Your task to perform on an android device: open app "WhatsApp Messenger" (install if not already installed) and enter user name: "cartons@outlook.com" and password: "approximated" Image 0: 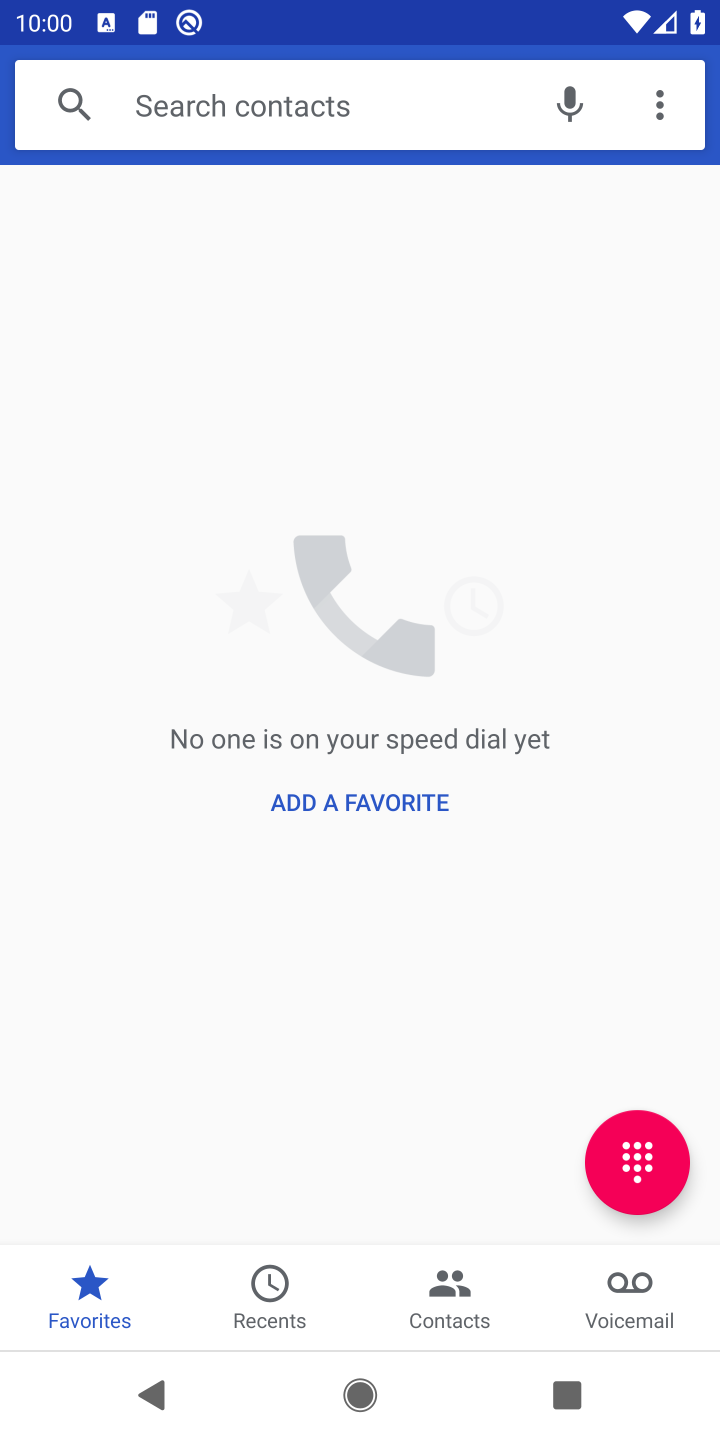
Step 0: press home button
Your task to perform on an android device: open app "WhatsApp Messenger" (install if not already installed) and enter user name: "cartons@outlook.com" and password: "approximated" Image 1: 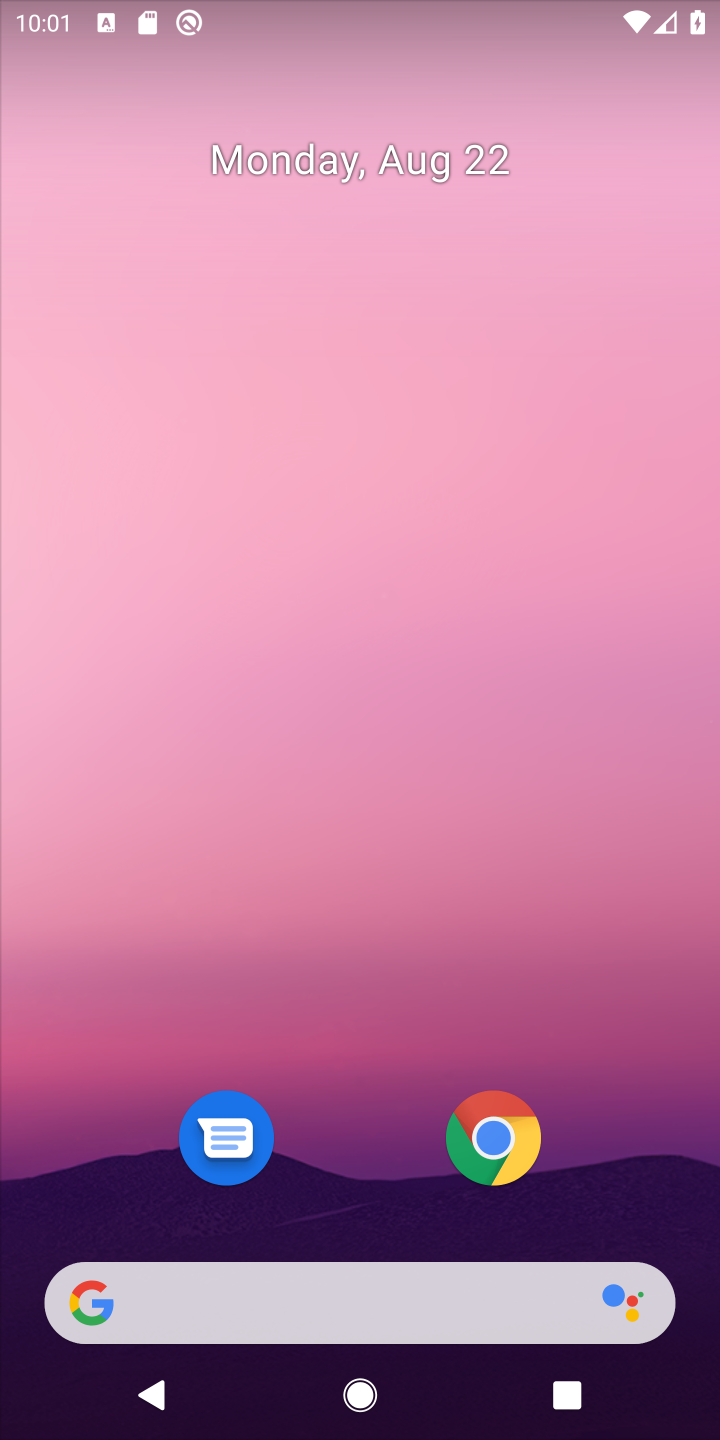
Step 1: click (380, 41)
Your task to perform on an android device: open app "WhatsApp Messenger" (install if not already installed) and enter user name: "cartons@outlook.com" and password: "approximated" Image 2: 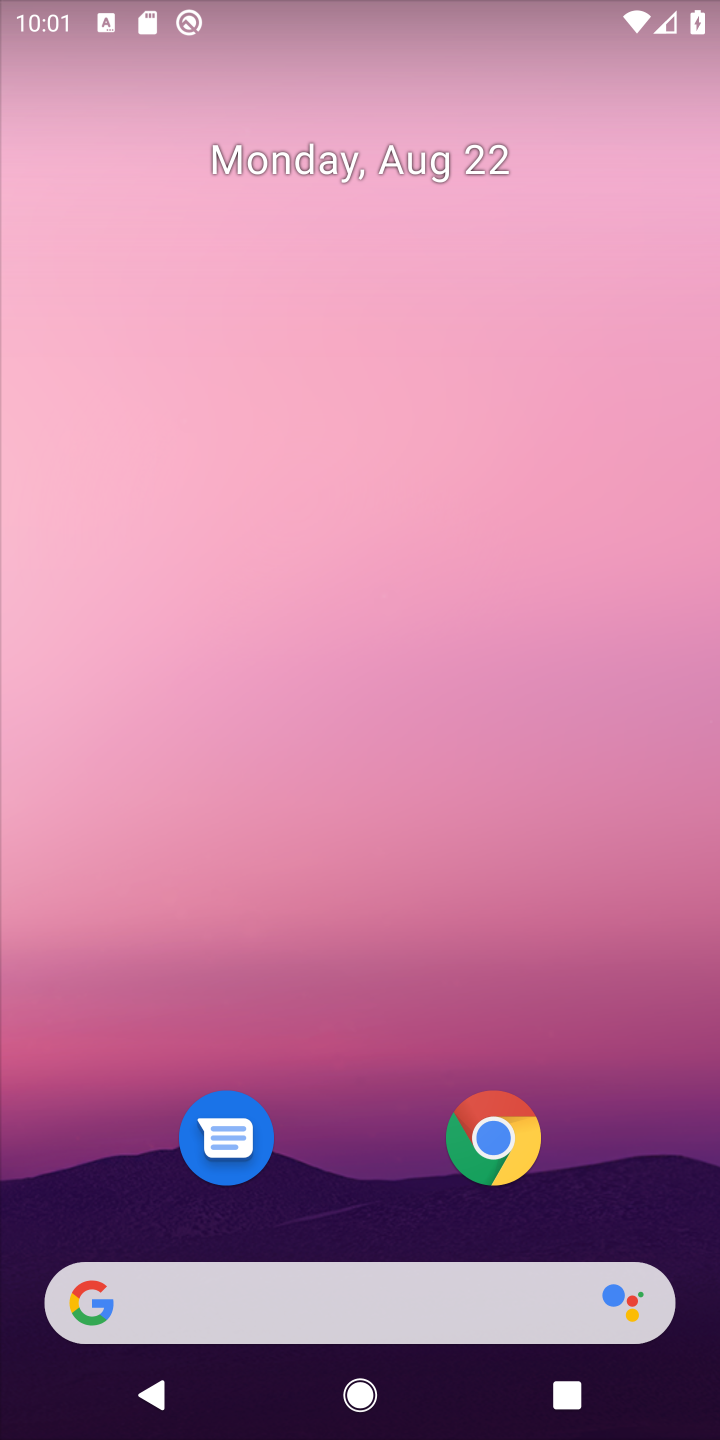
Step 2: drag from (385, 1216) to (416, 38)
Your task to perform on an android device: open app "WhatsApp Messenger" (install if not already installed) and enter user name: "cartons@outlook.com" and password: "approximated" Image 3: 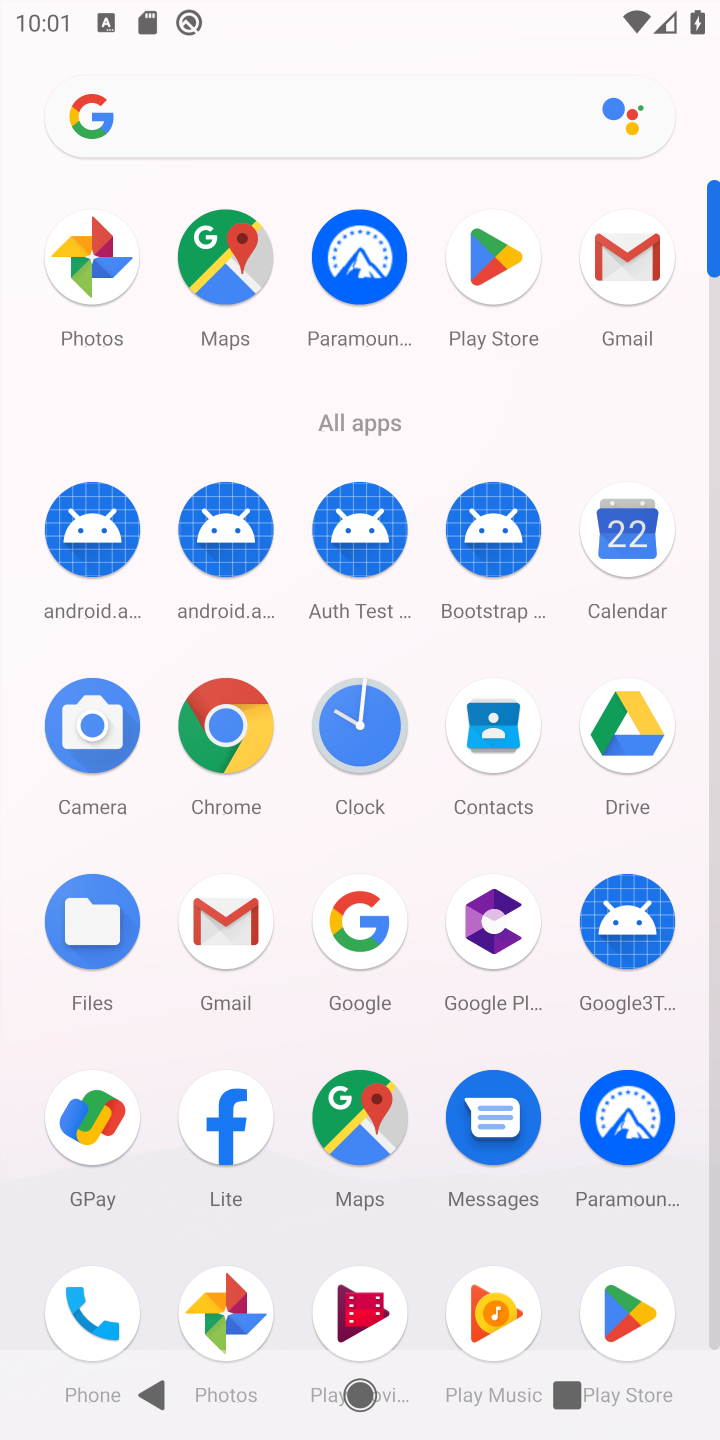
Step 3: click (492, 249)
Your task to perform on an android device: open app "WhatsApp Messenger" (install if not already installed) and enter user name: "cartons@outlook.com" and password: "approximated" Image 4: 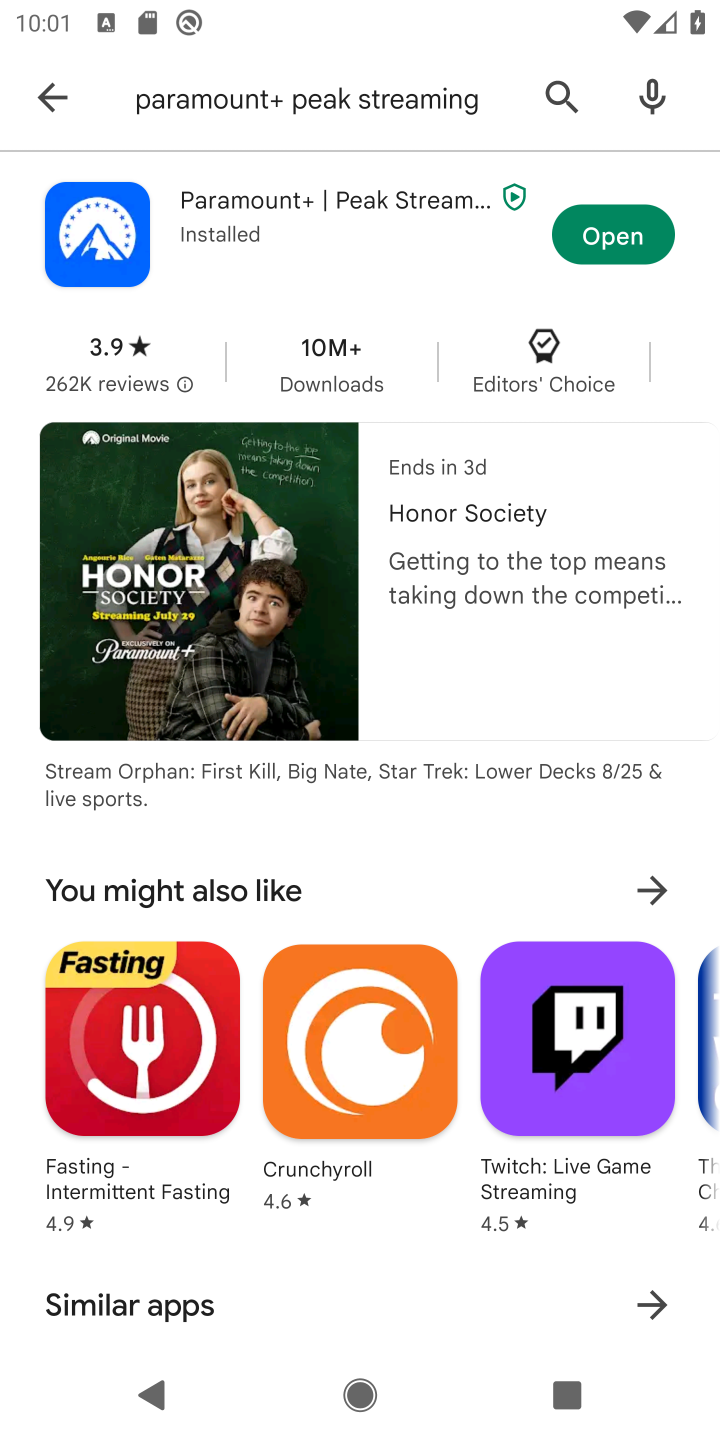
Step 4: click (562, 92)
Your task to perform on an android device: open app "WhatsApp Messenger" (install if not already installed) and enter user name: "cartons@outlook.com" and password: "approximated" Image 5: 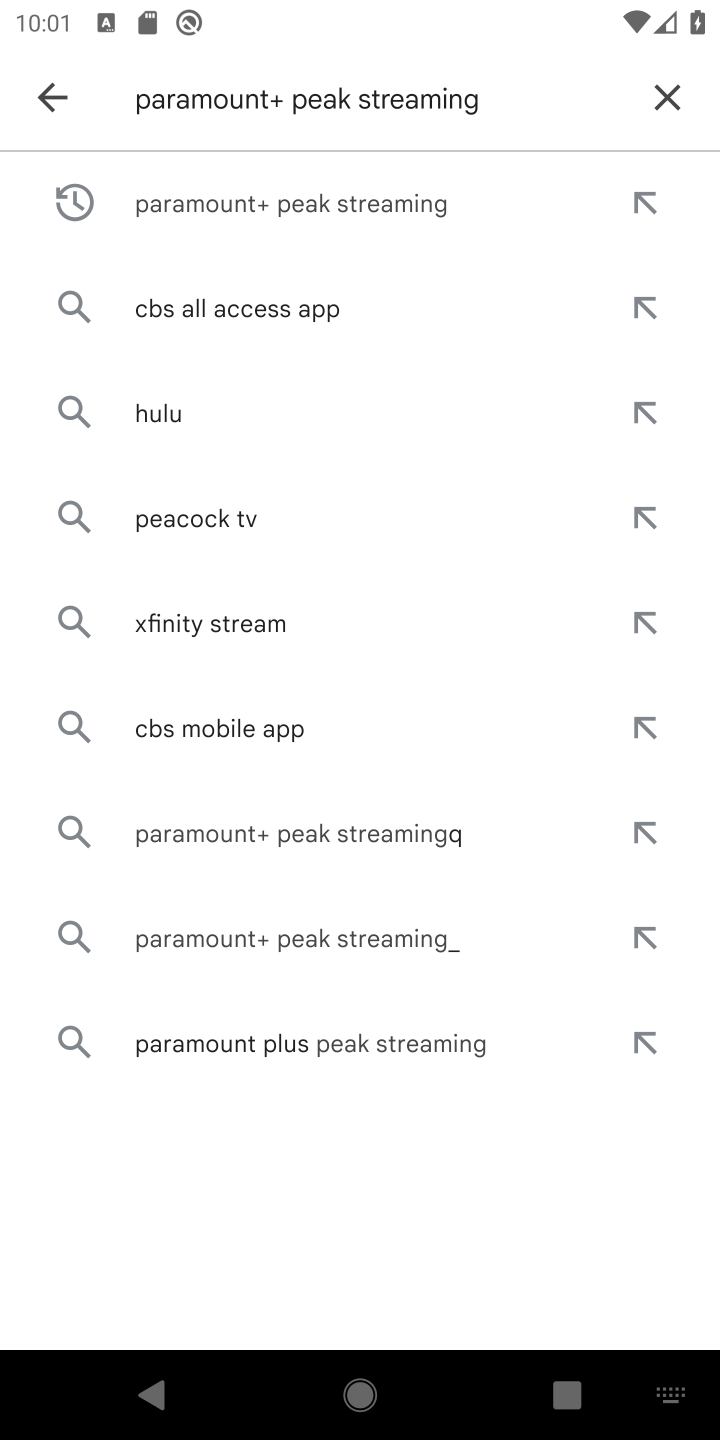
Step 5: click (664, 79)
Your task to perform on an android device: open app "WhatsApp Messenger" (install if not already installed) and enter user name: "cartons@outlook.com" and password: "approximated" Image 6: 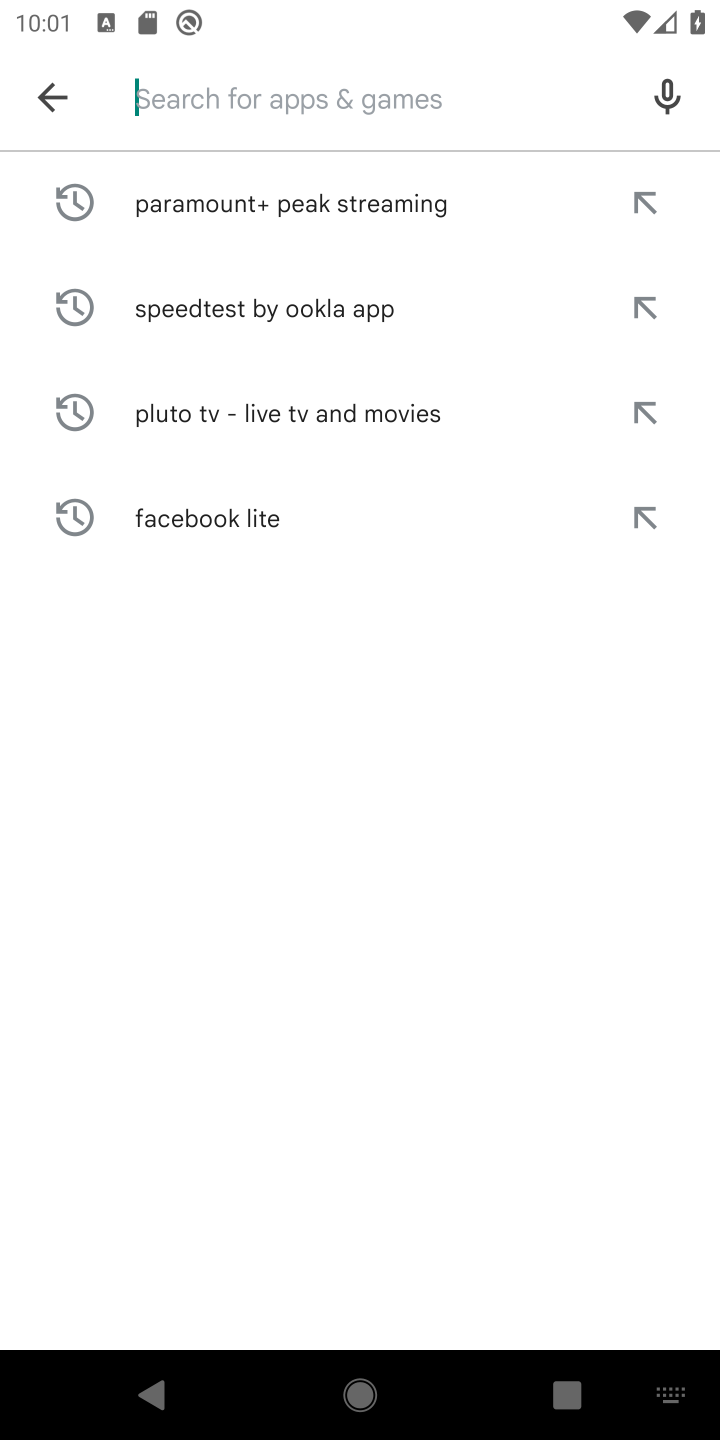
Step 6: type "WhatsApp Messenger"
Your task to perform on an android device: open app "WhatsApp Messenger" (install if not already installed) and enter user name: "cartons@outlook.com" and password: "approximated" Image 7: 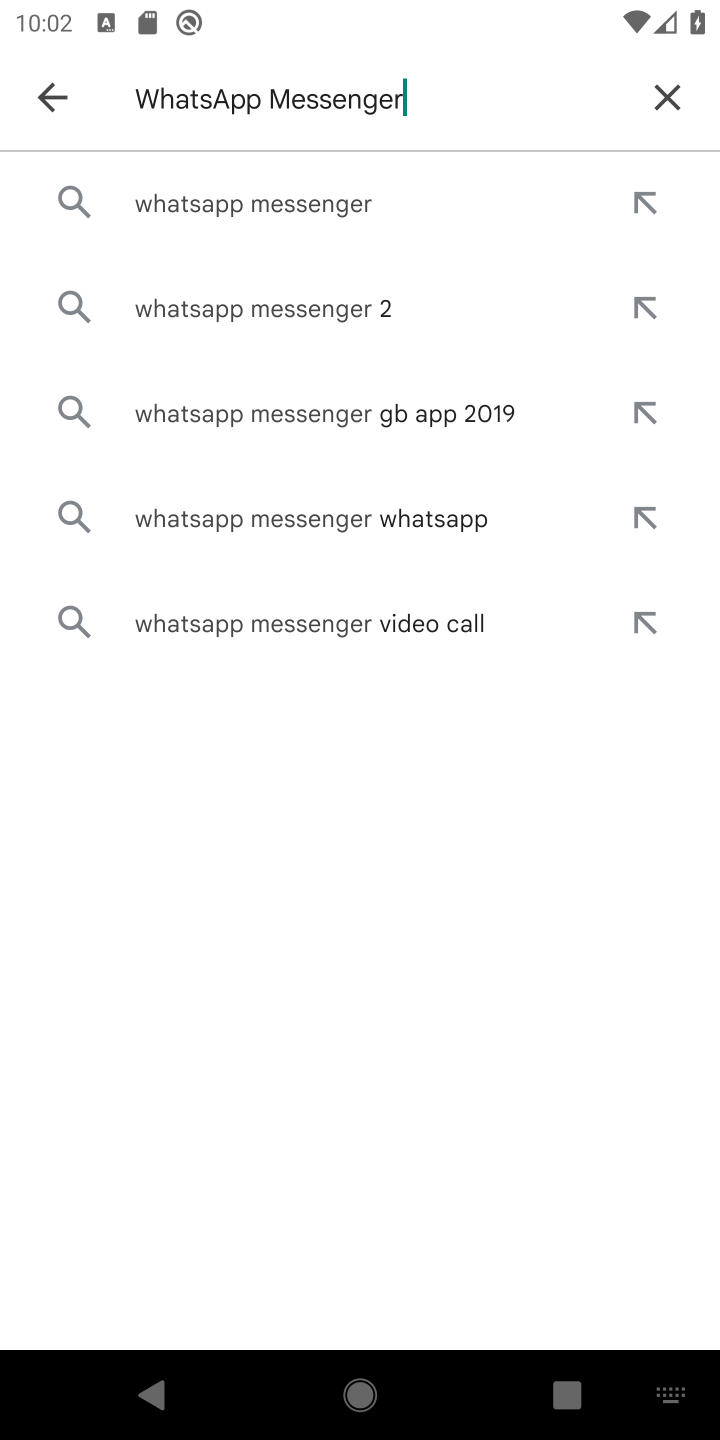
Step 7: click (371, 208)
Your task to perform on an android device: open app "WhatsApp Messenger" (install if not already installed) and enter user name: "cartons@outlook.com" and password: "approximated" Image 8: 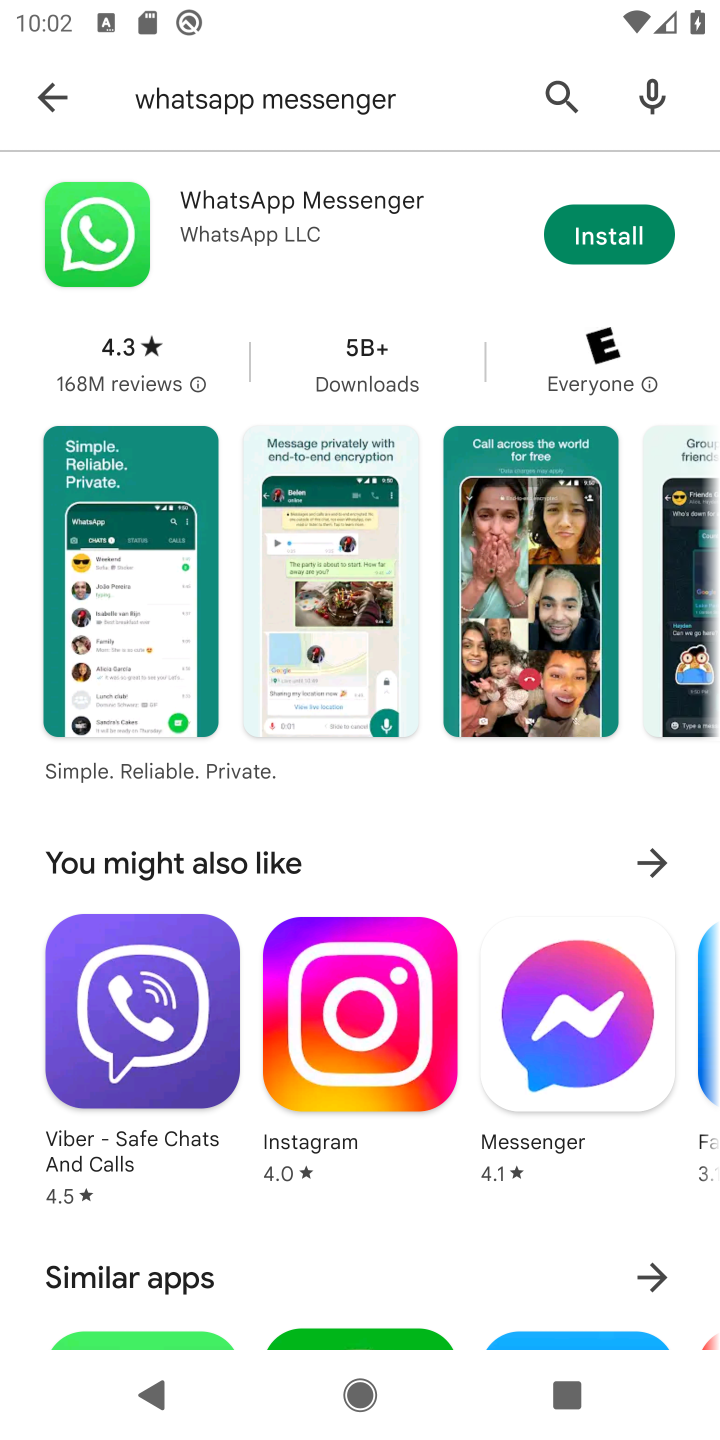
Step 8: click (609, 235)
Your task to perform on an android device: open app "WhatsApp Messenger" (install if not already installed) and enter user name: "cartons@outlook.com" and password: "approximated" Image 9: 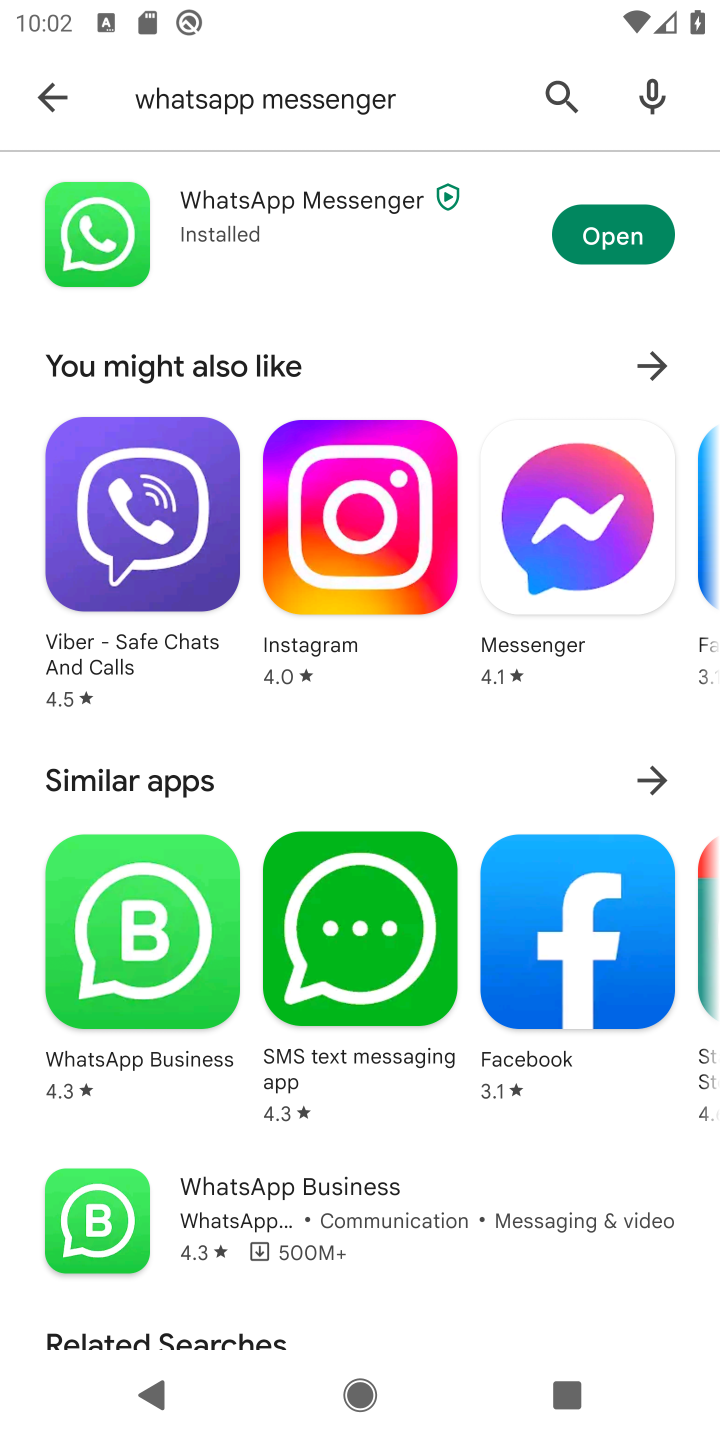
Step 9: click (616, 236)
Your task to perform on an android device: open app "WhatsApp Messenger" (install if not already installed) and enter user name: "cartons@outlook.com" and password: "approximated" Image 10: 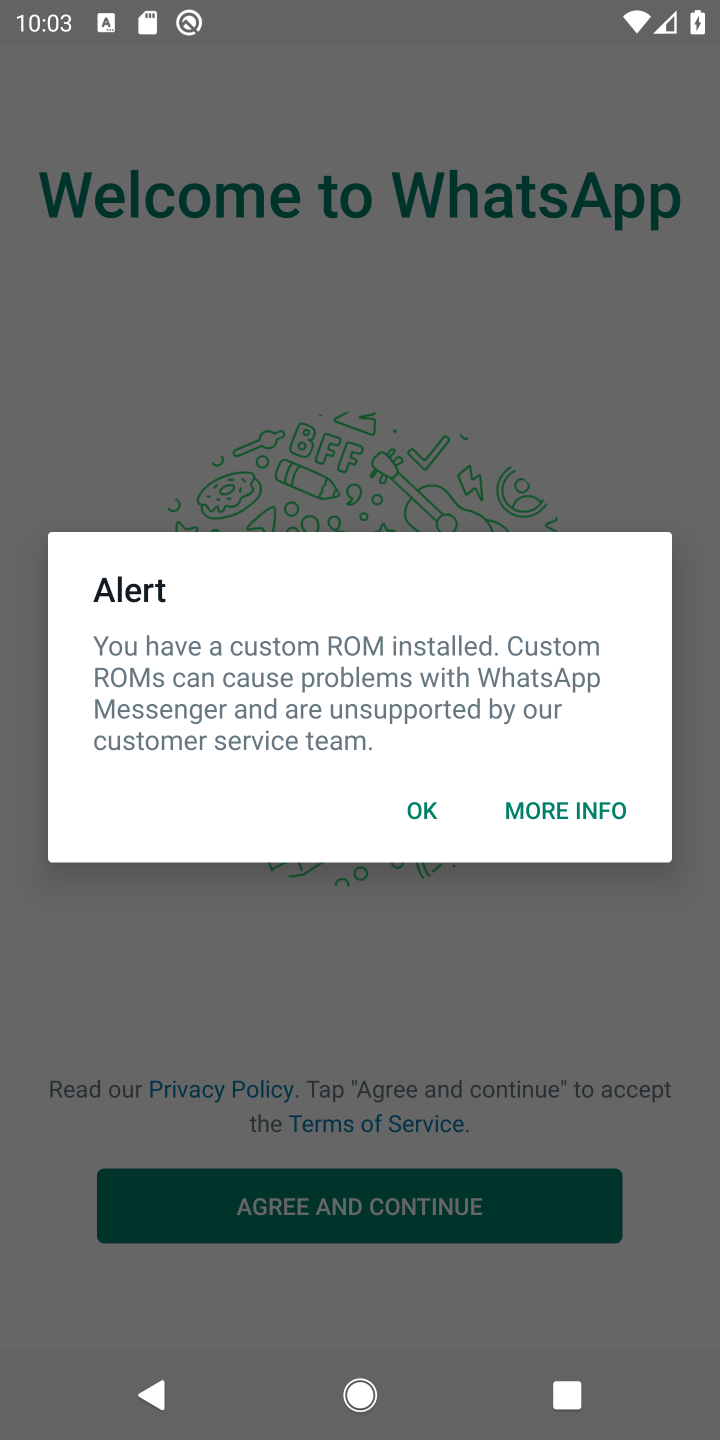
Step 10: click (435, 824)
Your task to perform on an android device: open app "WhatsApp Messenger" (install if not already installed) and enter user name: "cartons@outlook.com" and password: "approximated" Image 11: 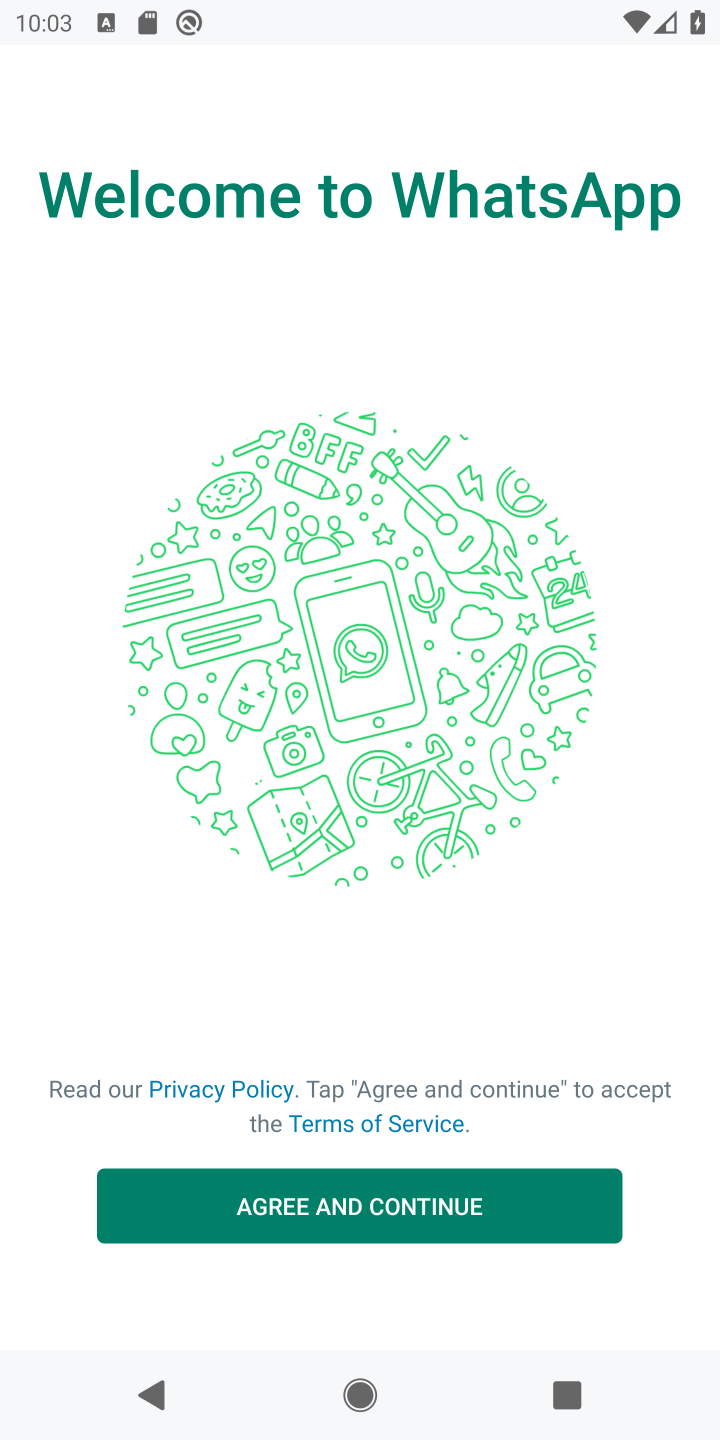
Step 11: task complete